Your task to perform on an android device: See recent photos Image 0: 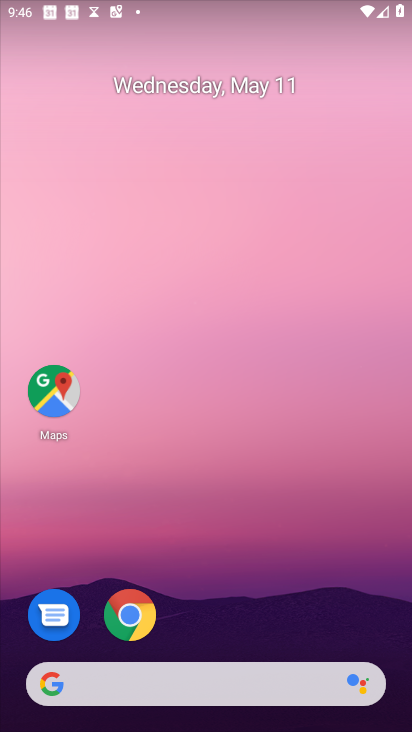
Step 0: drag from (319, 612) to (409, 452)
Your task to perform on an android device: See recent photos Image 1: 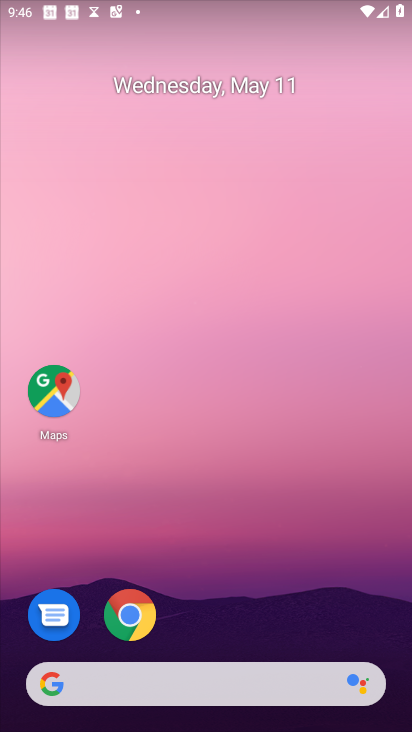
Step 1: drag from (242, 617) to (228, 221)
Your task to perform on an android device: See recent photos Image 2: 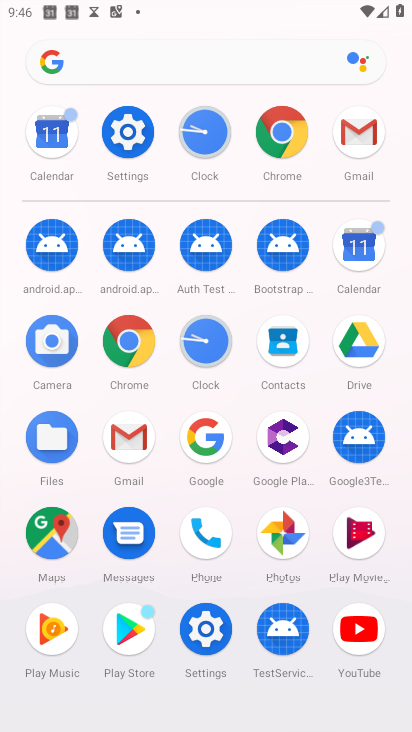
Step 2: drag from (170, 221) to (158, 78)
Your task to perform on an android device: See recent photos Image 3: 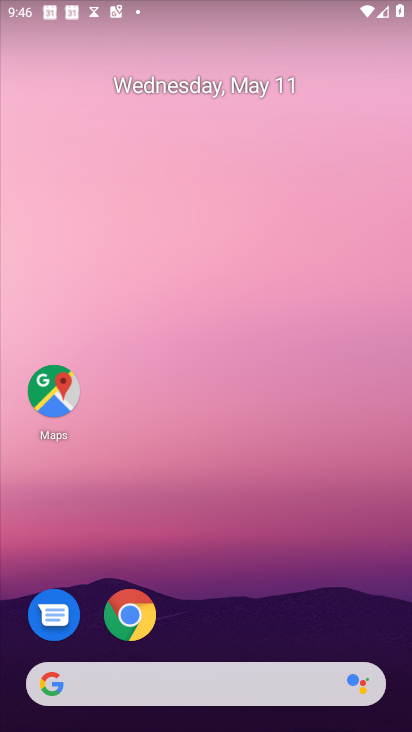
Step 3: click (166, 204)
Your task to perform on an android device: See recent photos Image 4: 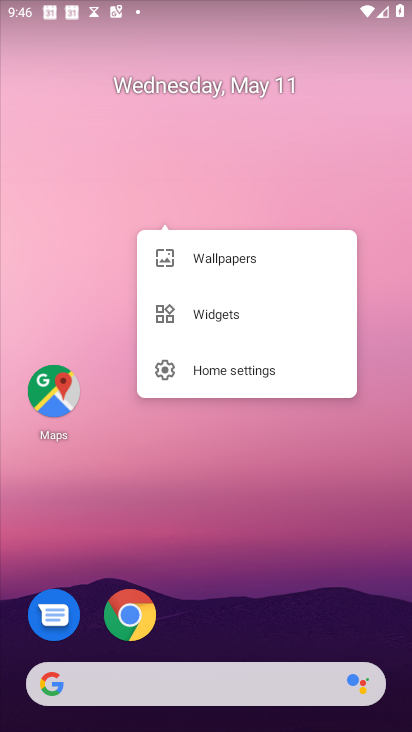
Step 4: drag from (272, 612) to (244, 113)
Your task to perform on an android device: See recent photos Image 5: 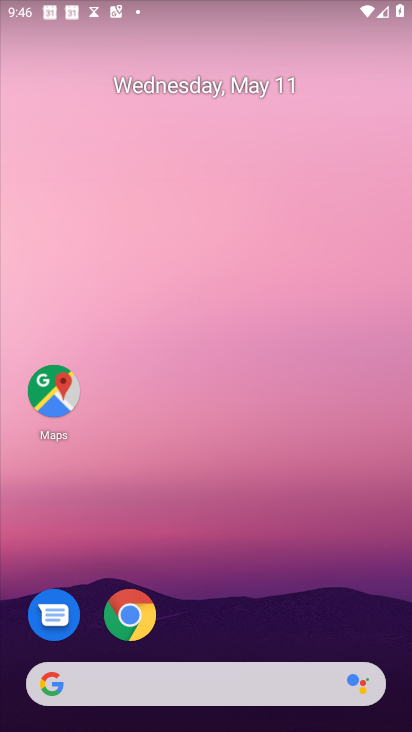
Step 5: drag from (243, 606) to (214, 103)
Your task to perform on an android device: See recent photos Image 6: 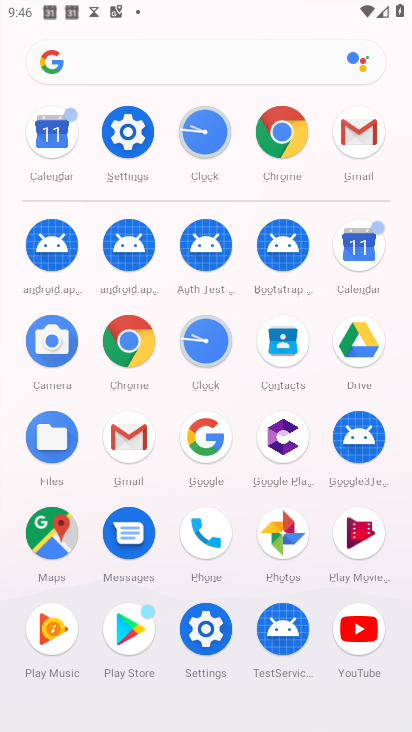
Step 6: click (284, 546)
Your task to perform on an android device: See recent photos Image 7: 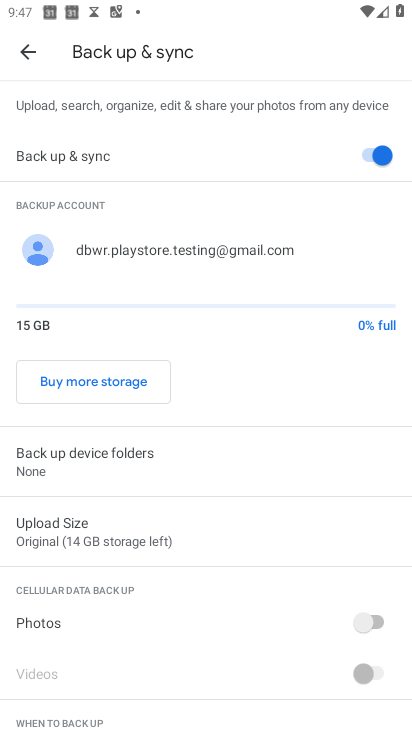
Step 7: click (40, 53)
Your task to perform on an android device: See recent photos Image 8: 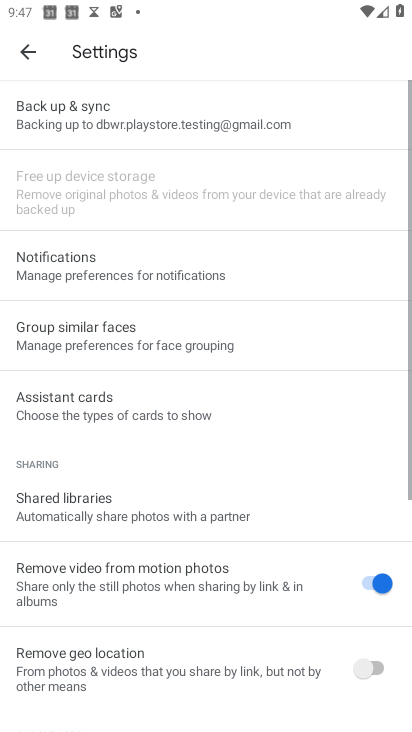
Step 8: click (38, 53)
Your task to perform on an android device: See recent photos Image 9: 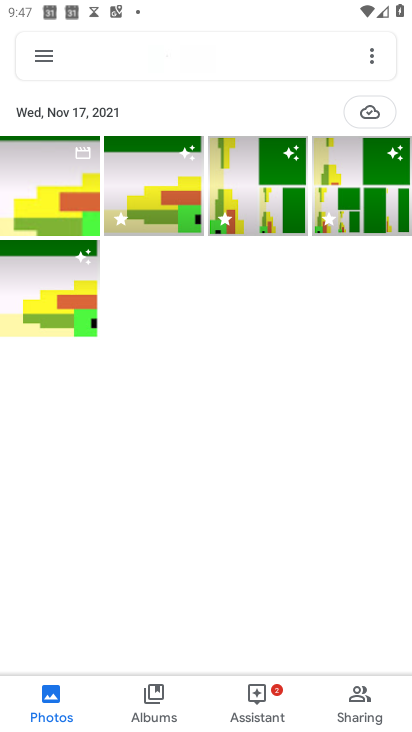
Step 9: click (81, 309)
Your task to perform on an android device: See recent photos Image 10: 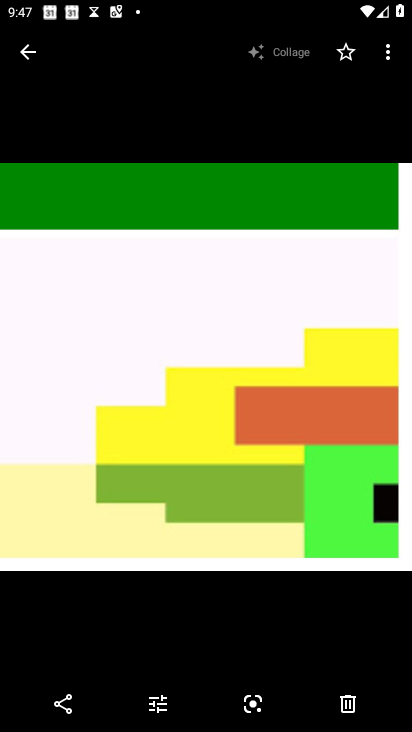
Step 10: task complete